Your task to perform on an android device: find photos in the google photos app Image 0: 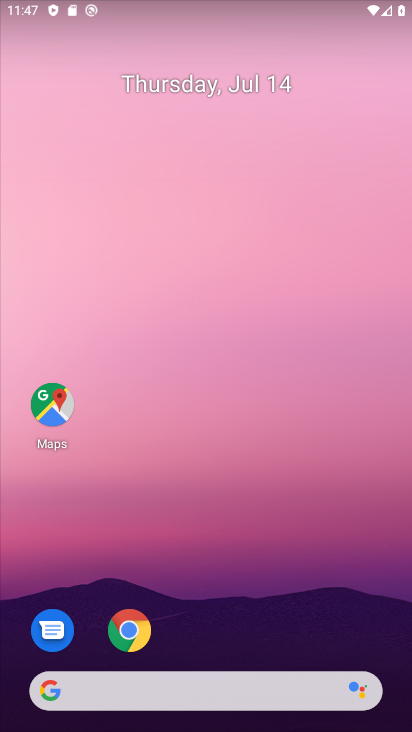
Step 0: drag from (304, 622) to (353, 123)
Your task to perform on an android device: find photos in the google photos app Image 1: 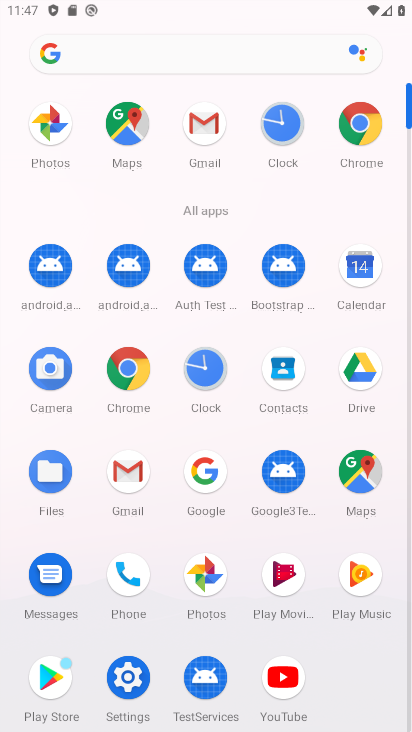
Step 1: click (204, 574)
Your task to perform on an android device: find photos in the google photos app Image 2: 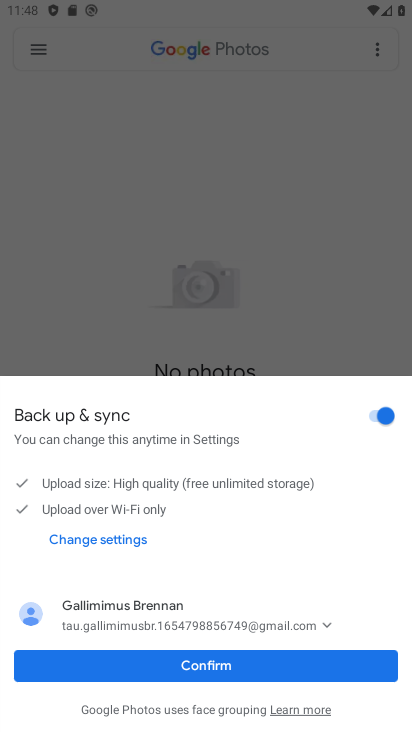
Step 2: click (353, 673)
Your task to perform on an android device: find photos in the google photos app Image 3: 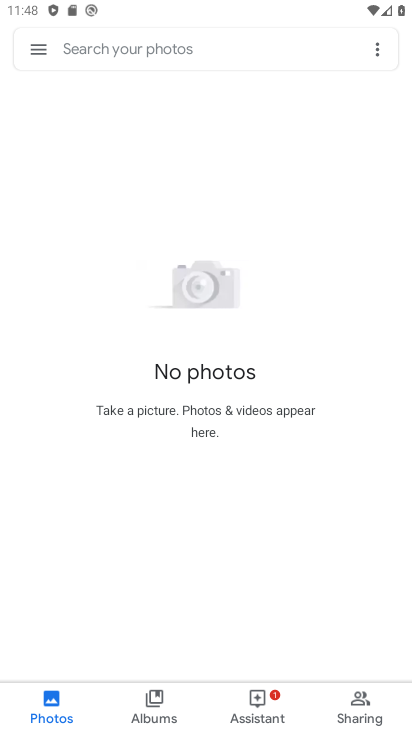
Step 3: task complete